Your task to perform on an android device: What's the weather going to be tomorrow? Image 0: 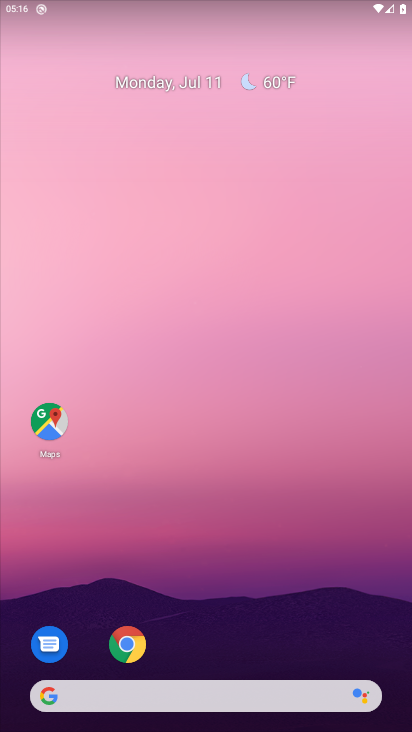
Step 0: drag from (220, 671) to (275, 288)
Your task to perform on an android device: What's the weather going to be tomorrow? Image 1: 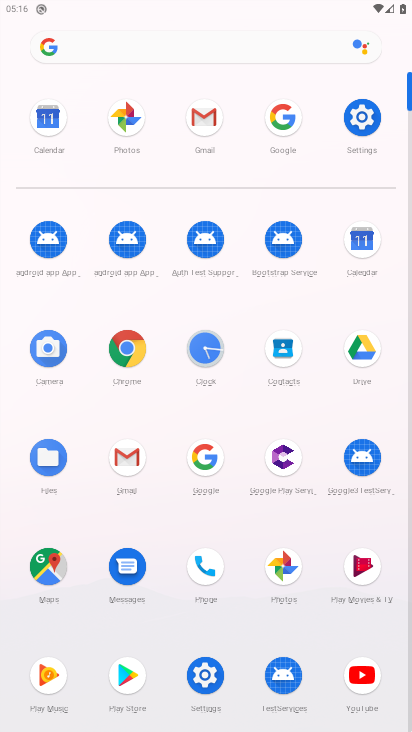
Step 1: click (197, 462)
Your task to perform on an android device: What's the weather going to be tomorrow? Image 2: 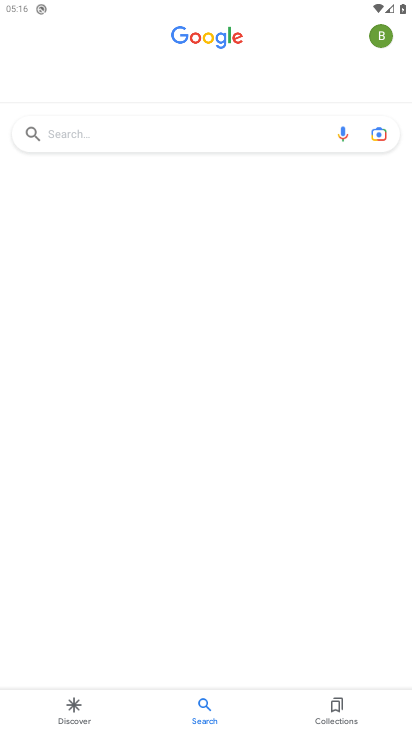
Step 2: click (115, 135)
Your task to perform on an android device: What's the weather going to be tomorrow? Image 3: 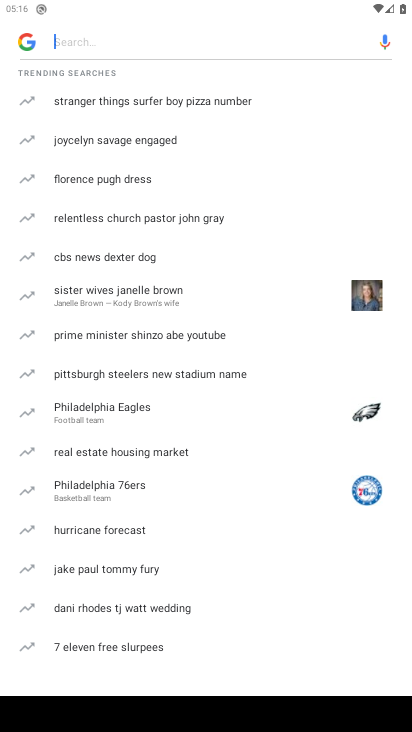
Step 3: click (86, 39)
Your task to perform on an android device: What's the weather going to be tomorrow? Image 4: 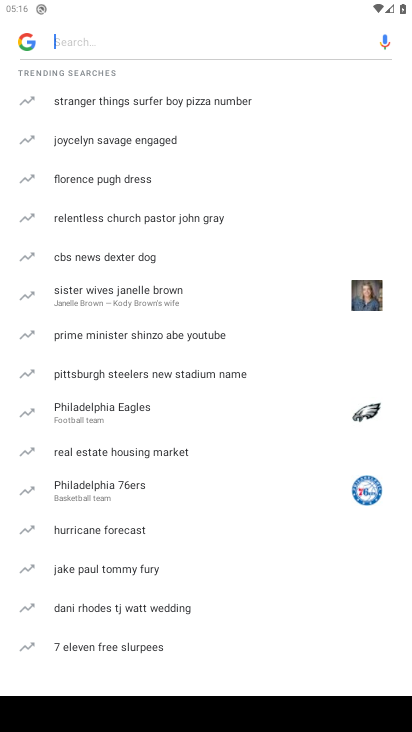
Step 4: type "What's the weather going to be tomorrow?"
Your task to perform on an android device: What's the weather going to be tomorrow? Image 5: 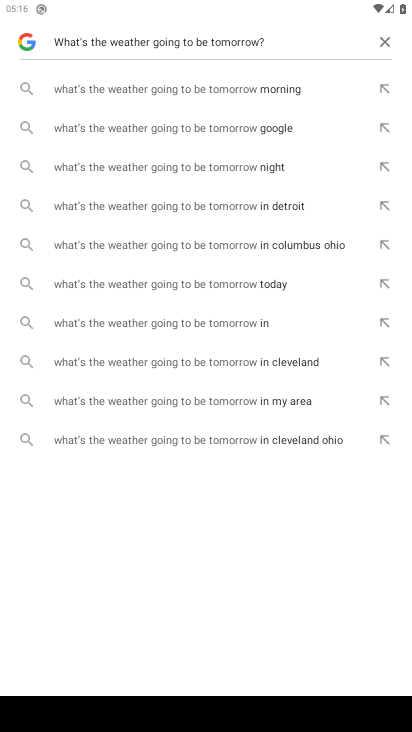
Step 5: click (190, 321)
Your task to perform on an android device: What's the weather going to be tomorrow? Image 6: 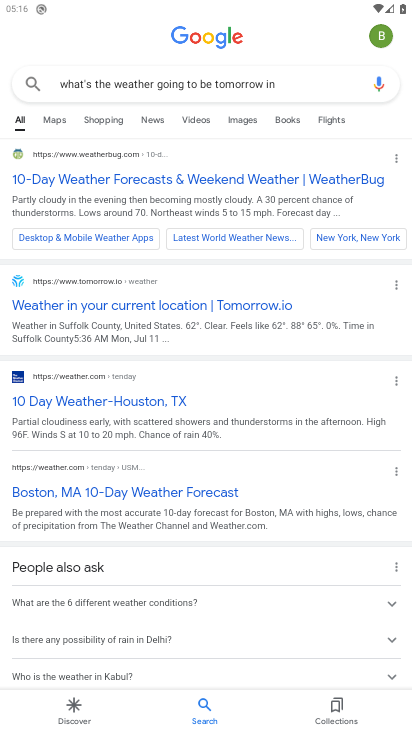
Step 6: click (142, 181)
Your task to perform on an android device: What's the weather going to be tomorrow? Image 7: 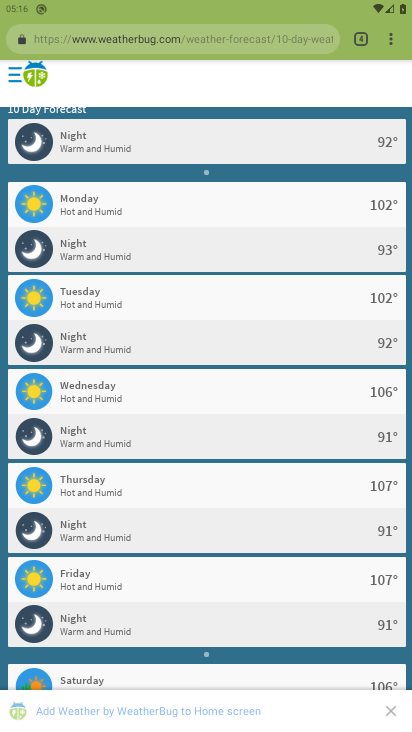
Step 7: task complete